Your task to perform on an android device: Go to sound settings Image 0: 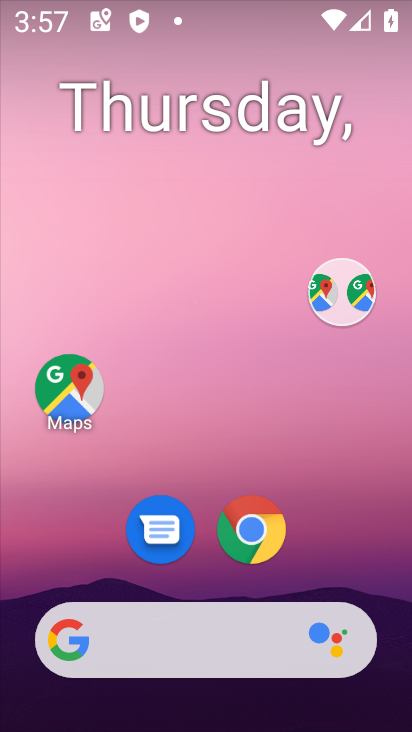
Step 0: drag from (249, 599) to (339, 41)
Your task to perform on an android device: Go to sound settings Image 1: 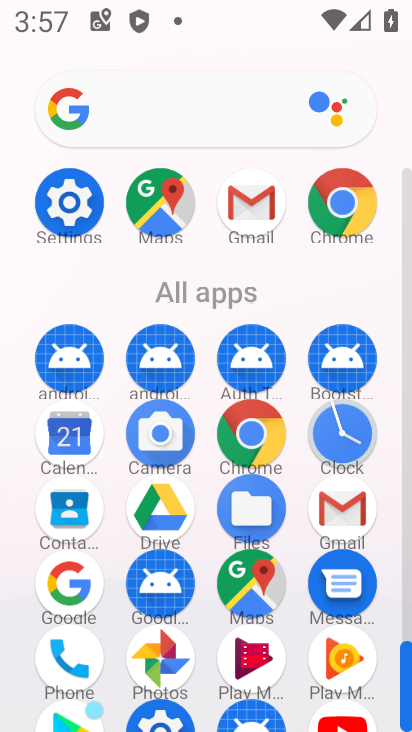
Step 1: click (339, 41)
Your task to perform on an android device: Go to sound settings Image 2: 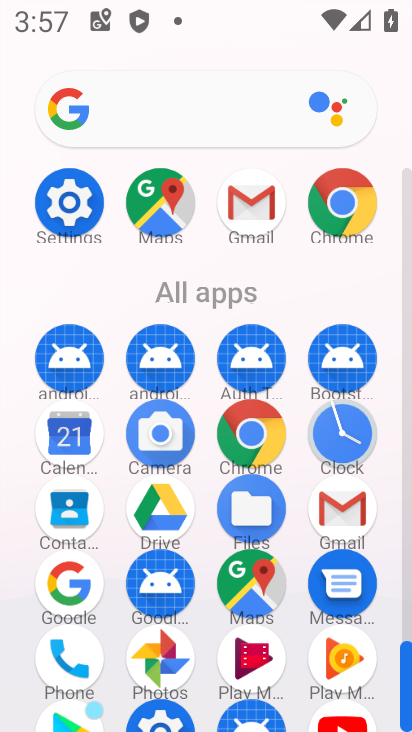
Step 2: click (57, 197)
Your task to perform on an android device: Go to sound settings Image 3: 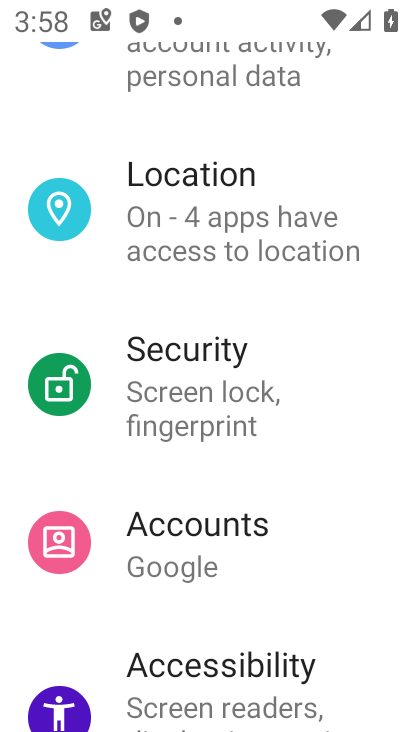
Step 3: drag from (165, 471) to (221, 134)
Your task to perform on an android device: Go to sound settings Image 4: 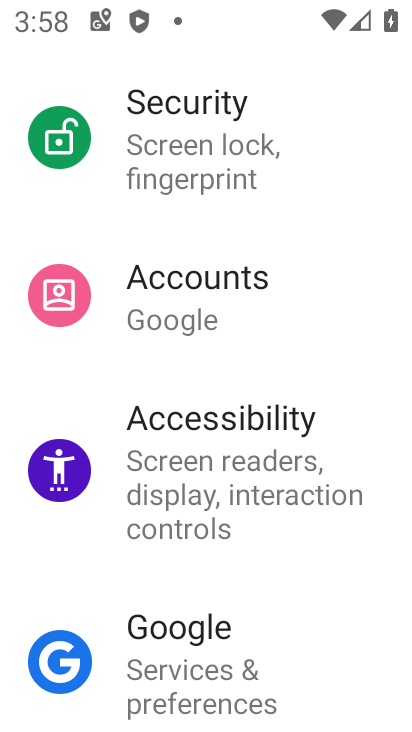
Step 4: drag from (152, 546) to (236, 132)
Your task to perform on an android device: Go to sound settings Image 5: 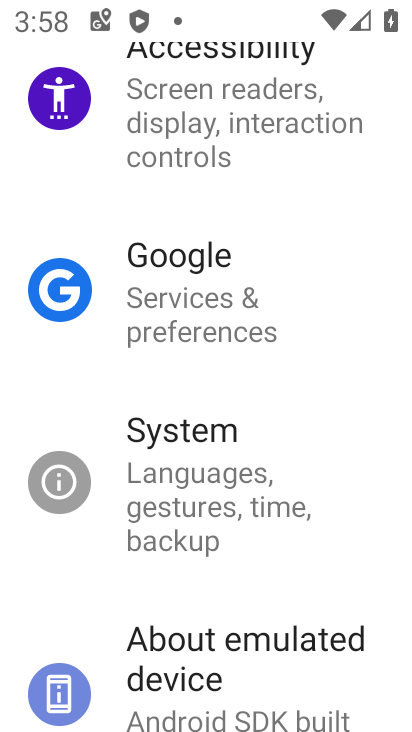
Step 5: drag from (143, 648) to (235, 211)
Your task to perform on an android device: Go to sound settings Image 6: 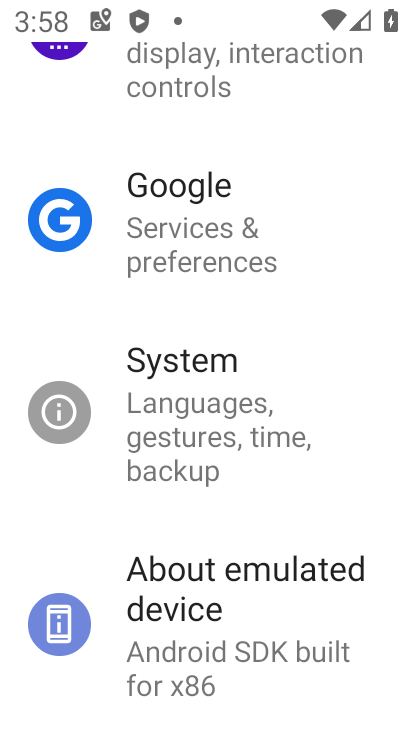
Step 6: drag from (235, 211) to (111, 721)
Your task to perform on an android device: Go to sound settings Image 7: 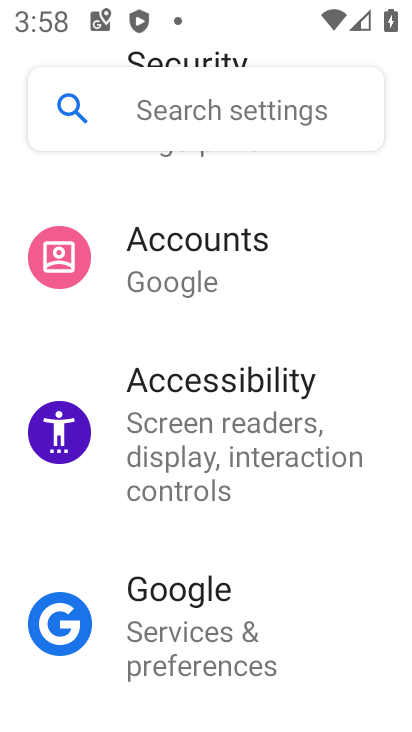
Step 7: drag from (234, 234) to (124, 719)
Your task to perform on an android device: Go to sound settings Image 8: 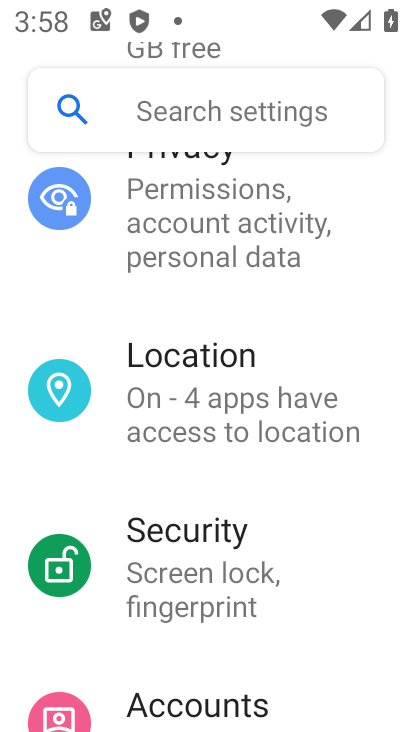
Step 8: drag from (230, 293) to (183, 674)
Your task to perform on an android device: Go to sound settings Image 9: 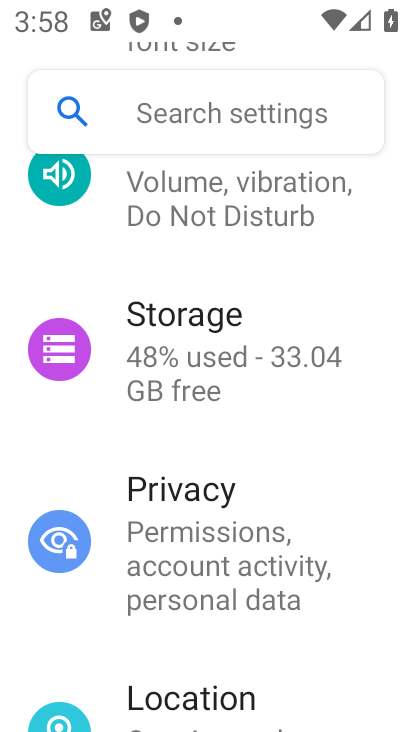
Step 9: drag from (225, 158) to (212, 370)
Your task to perform on an android device: Go to sound settings Image 10: 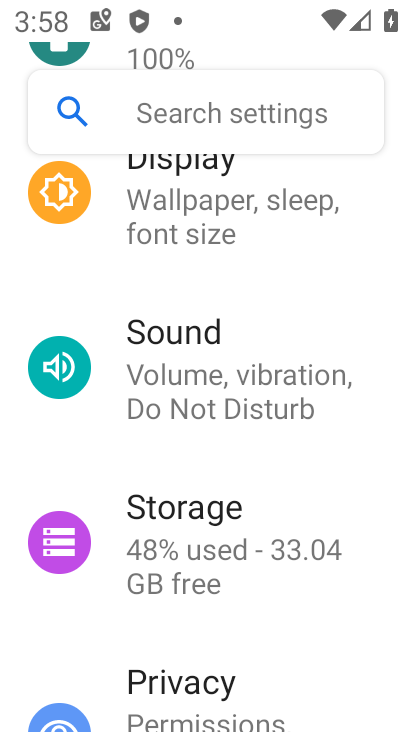
Step 10: click (224, 362)
Your task to perform on an android device: Go to sound settings Image 11: 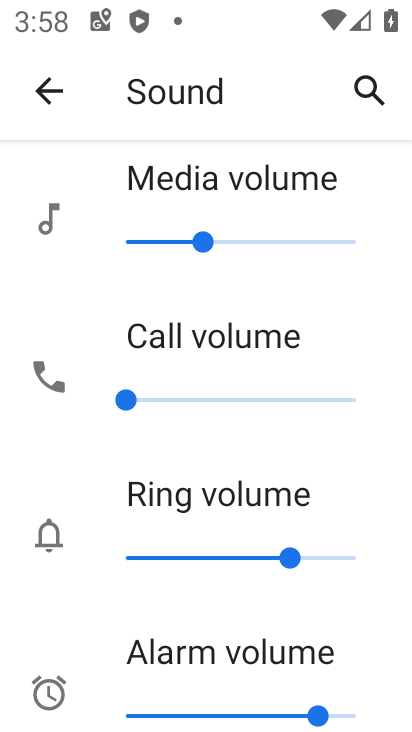
Step 11: task complete